Your task to perform on an android device: turn on priority inbox in the gmail app Image 0: 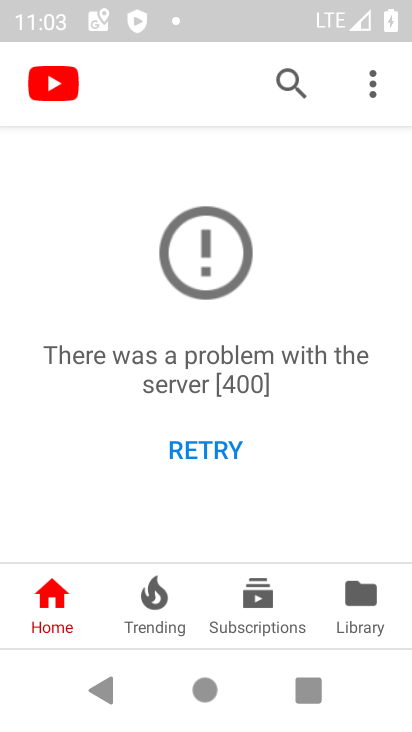
Step 0: press home button
Your task to perform on an android device: turn on priority inbox in the gmail app Image 1: 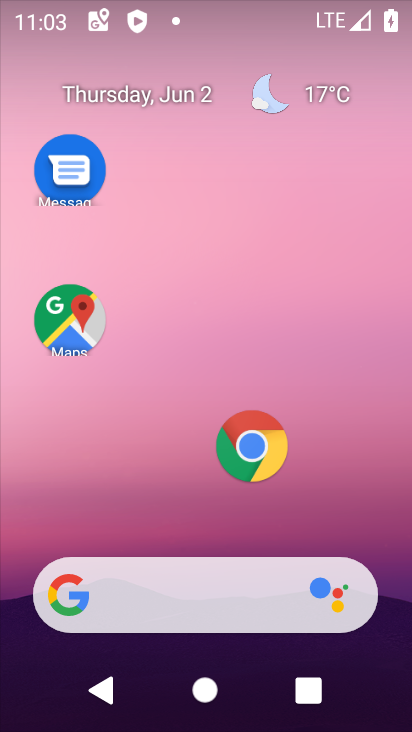
Step 1: drag from (220, 607) to (219, 175)
Your task to perform on an android device: turn on priority inbox in the gmail app Image 2: 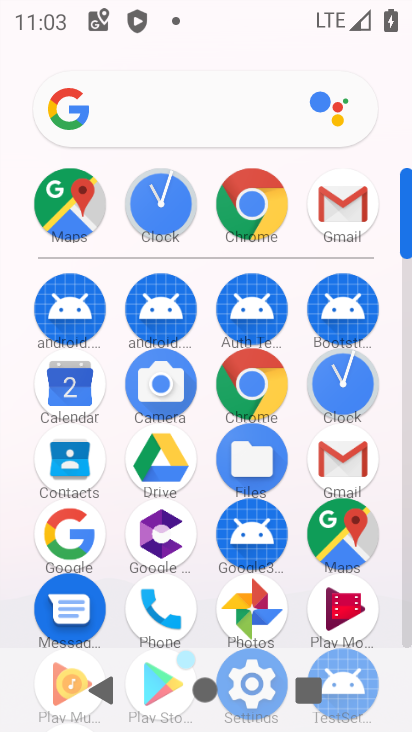
Step 2: click (327, 189)
Your task to perform on an android device: turn on priority inbox in the gmail app Image 3: 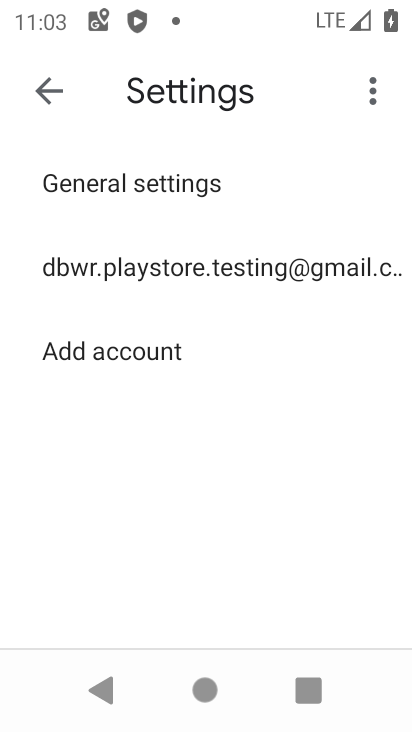
Step 3: click (233, 270)
Your task to perform on an android device: turn on priority inbox in the gmail app Image 4: 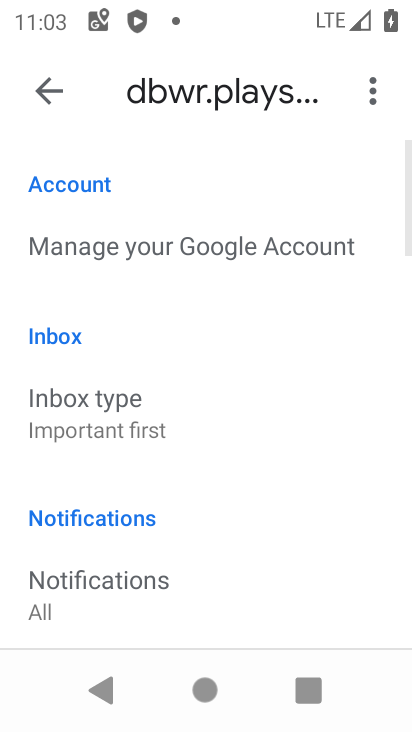
Step 4: click (89, 445)
Your task to perform on an android device: turn on priority inbox in the gmail app Image 5: 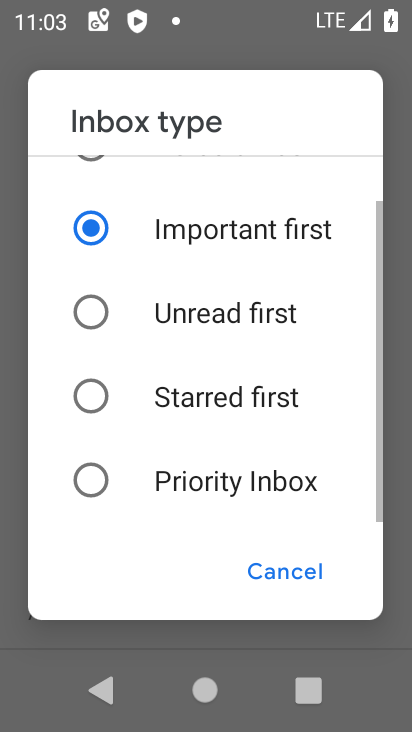
Step 5: click (97, 474)
Your task to perform on an android device: turn on priority inbox in the gmail app Image 6: 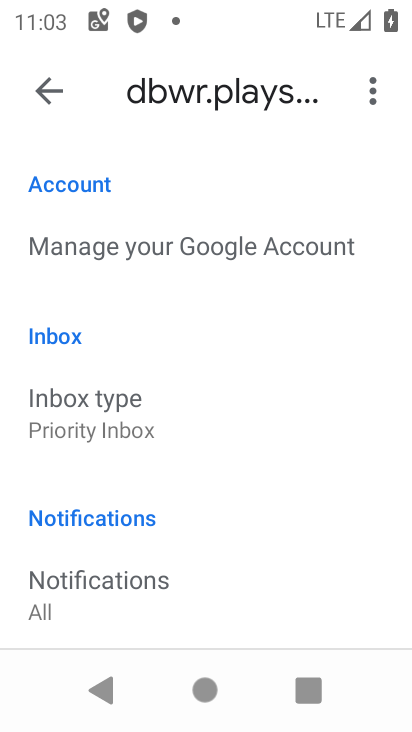
Step 6: task complete